Your task to perform on an android device: change the clock display to show seconds Image 0: 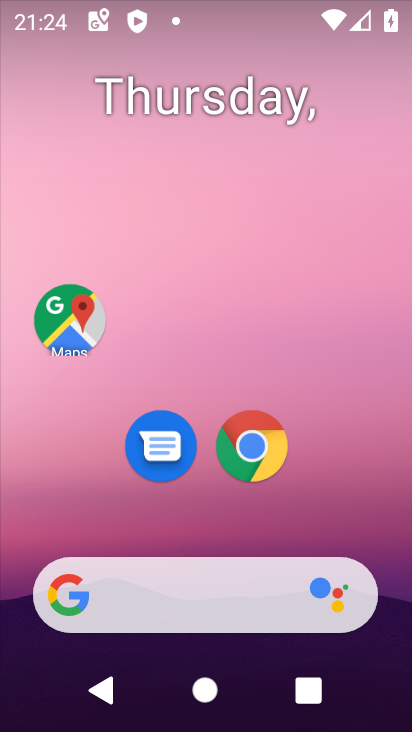
Step 0: drag from (336, 538) to (341, 127)
Your task to perform on an android device: change the clock display to show seconds Image 1: 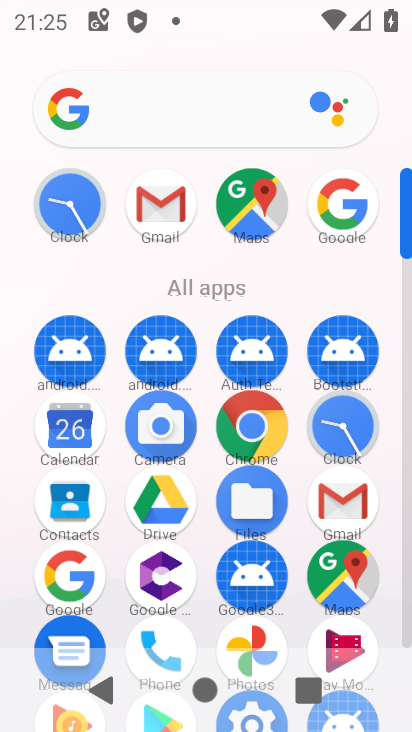
Step 1: click (344, 427)
Your task to perform on an android device: change the clock display to show seconds Image 2: 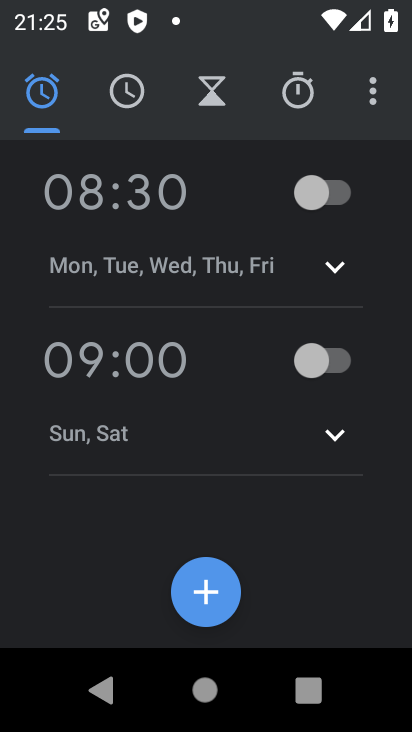
Step 2: click (373, 97)
Your task to perform on an android device: change the clock display to show seconds Image 3: 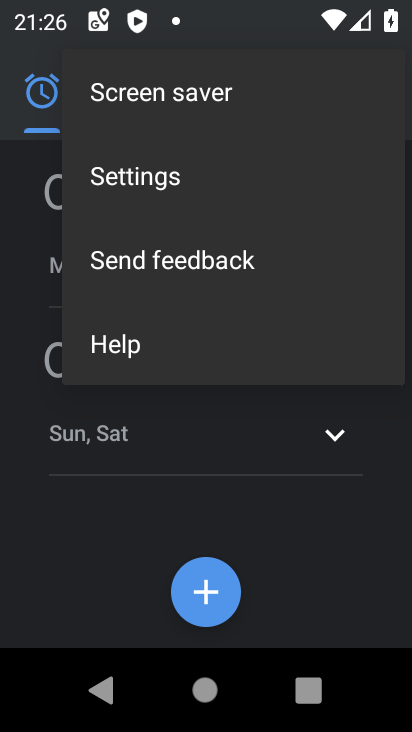
Step 3: click (173, 201)
Your task to perform on an android device: change the clock display to show seconds Image 4: 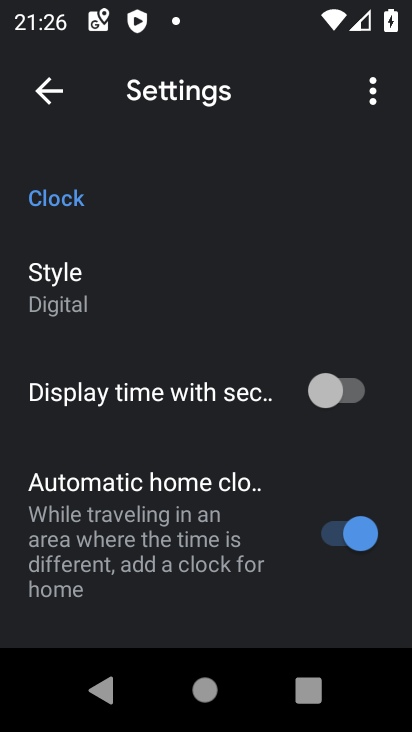
Step 4: click (126, 398)
Your task to perform on an android device: change the clock display to show seconds Image 5: 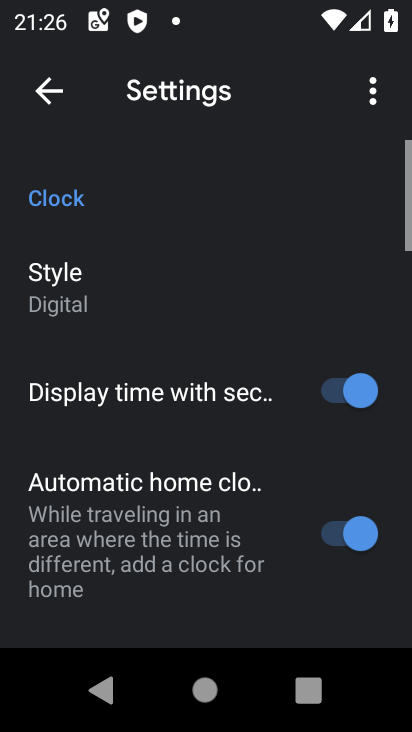
Step 5: task complete